Your task to perform on an android device: open the mobile data screen to see how much data has been used Image 0: 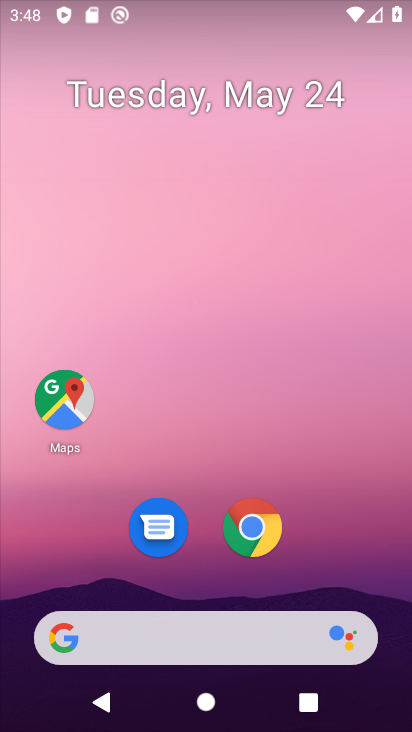
Step 0: drag from (259, 661) to (283, 46)
Your task to perform on an android device: open the mobile data screen to see how much data has been used Image 1: 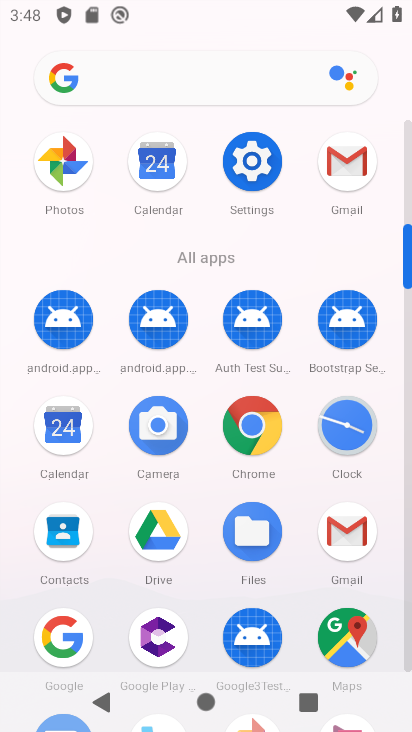
Step 1: click (256, 146)
Your task to perform on an android device: open the mobile data screen to see how much data has been used Image 2: 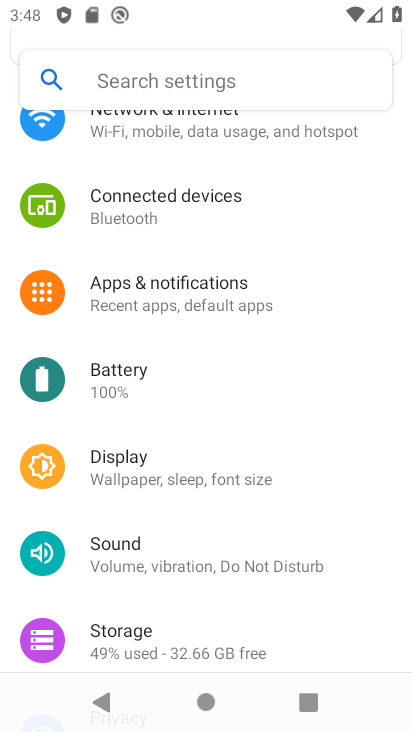
Step 2: click (162, 88)
Your task to perform on an android device: open the mobile data screen to see how much data has been used Image 3: 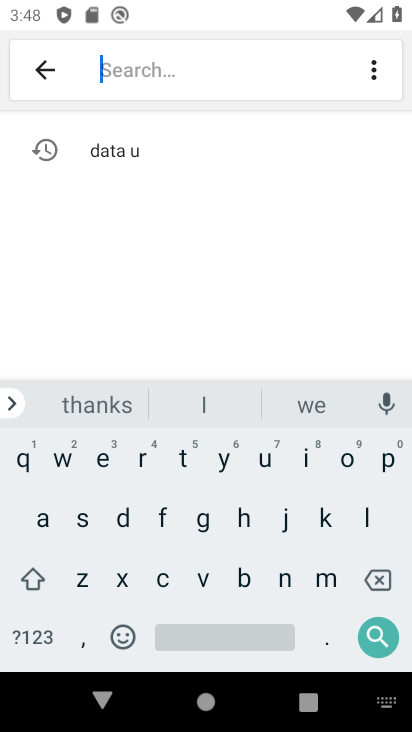
Step 3: click (121, 156)
Your task to perform on an android device: open the mobile data screen to see how much data has been used Image 4: 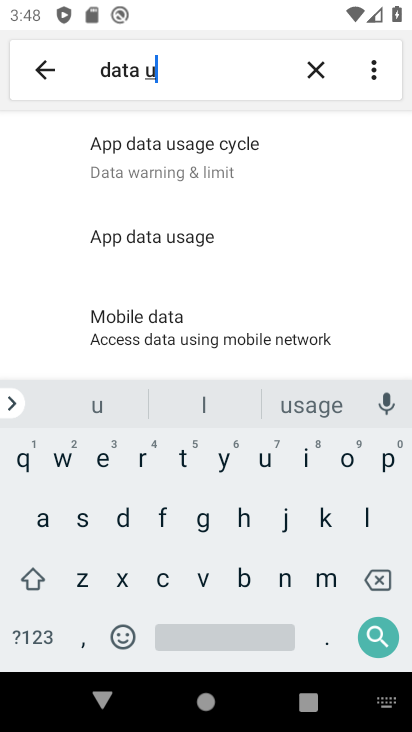
Step 4: click (143, 242)
Your task to perform on an android device: open the mobile data screen to see how much data has been used Image 5: 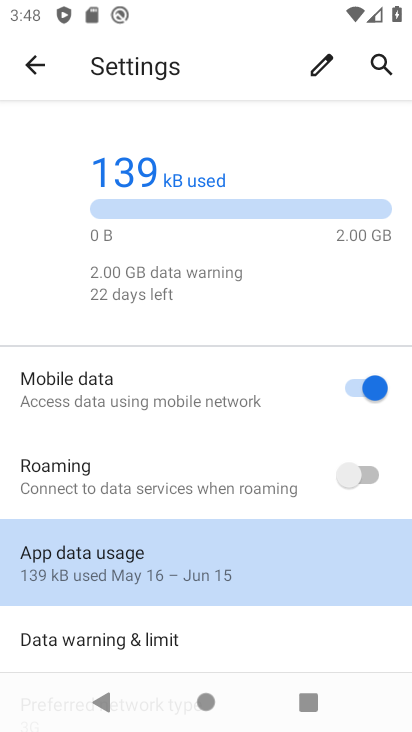
Step 5: click (169, 569)
Your task to perform on an android device: open the mobile data screen to see how much data has been used Image 6: 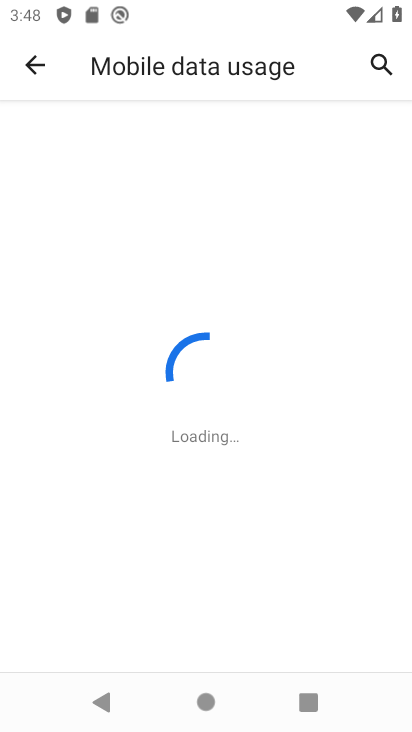
Step 6: task complete